Your task to perform on an android device: manage bookmarks in the chrome app Image 0: 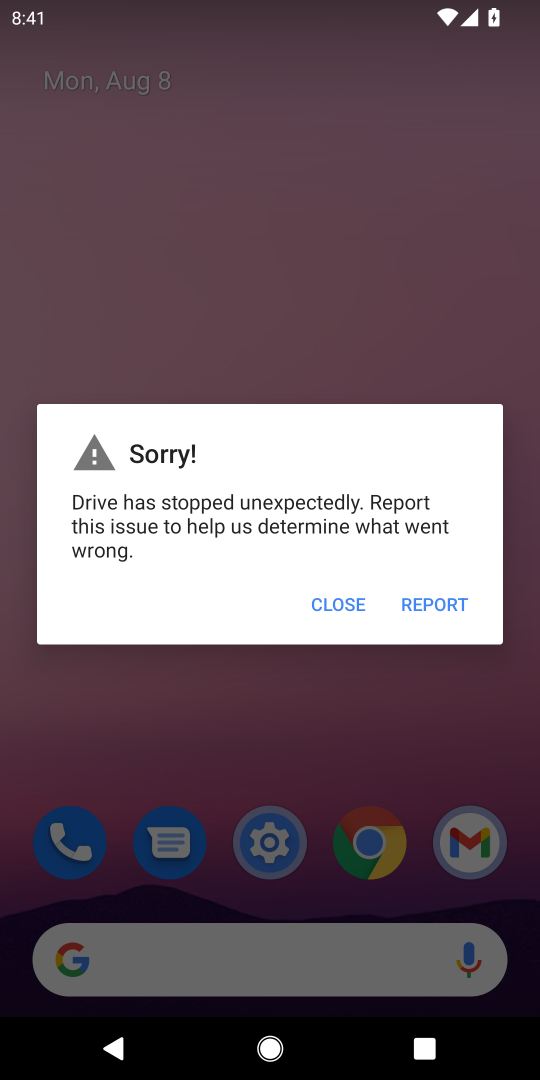
Step 0: click (359, 603)
Your task to perform on an android device: manage bookmarks in the chrome app Image 1: 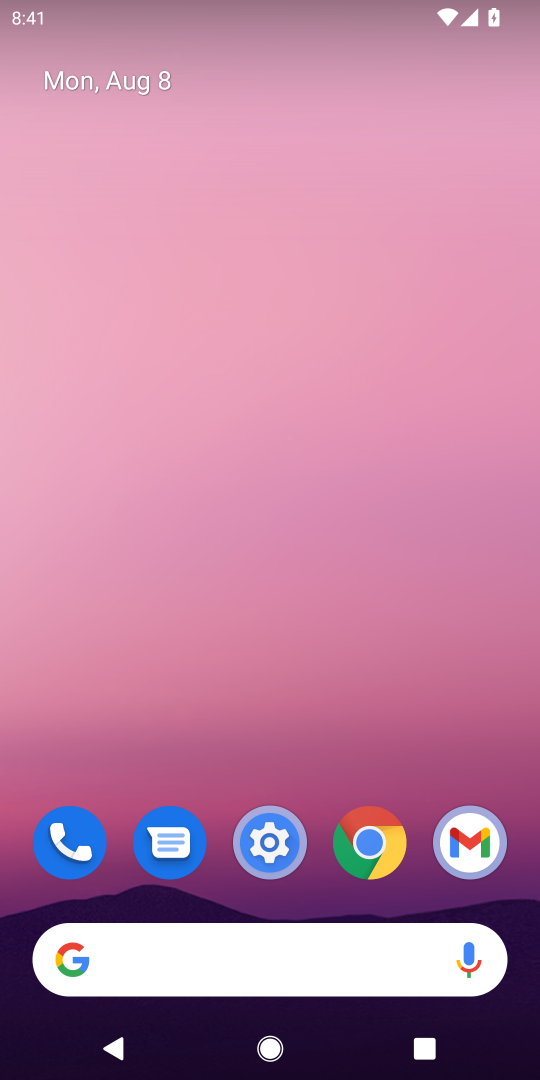
Step 1: click (383, 842)
Your task to perform on an android device: manage bookmarks in the chrome app Image 2: 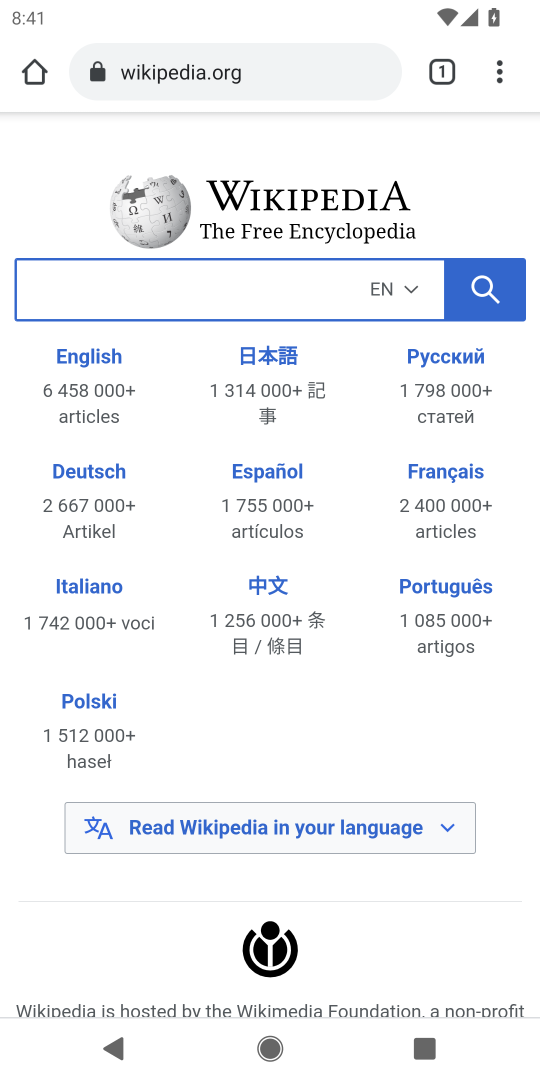
Step 2: click (497, 78)
Your task to perform on an android device: manage bookmarks in the chrome app Image 3: 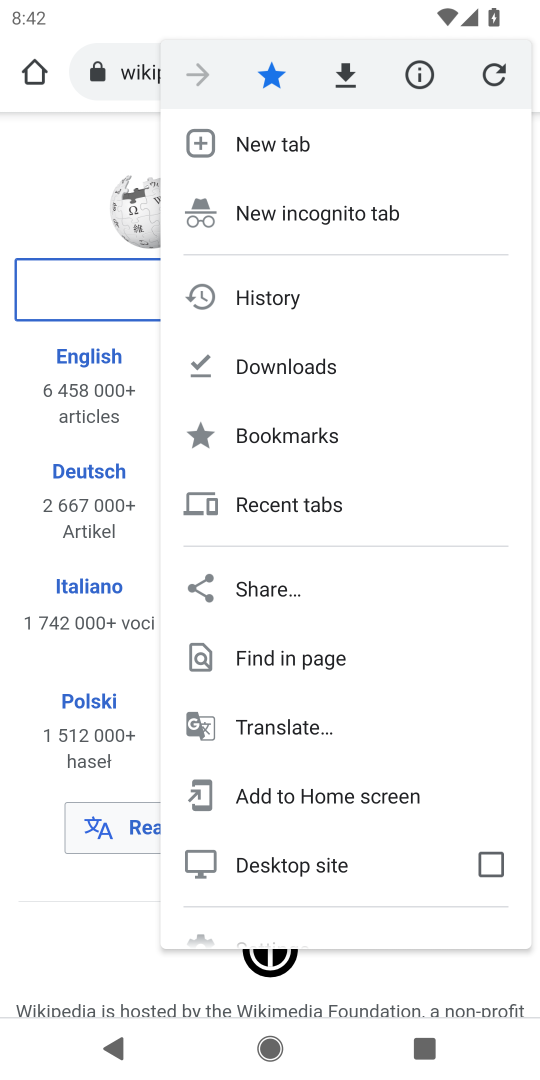
Step 3: click (295, 447)
Your task to perform on an android device: manage bookmarks in the chrome app Image 4: 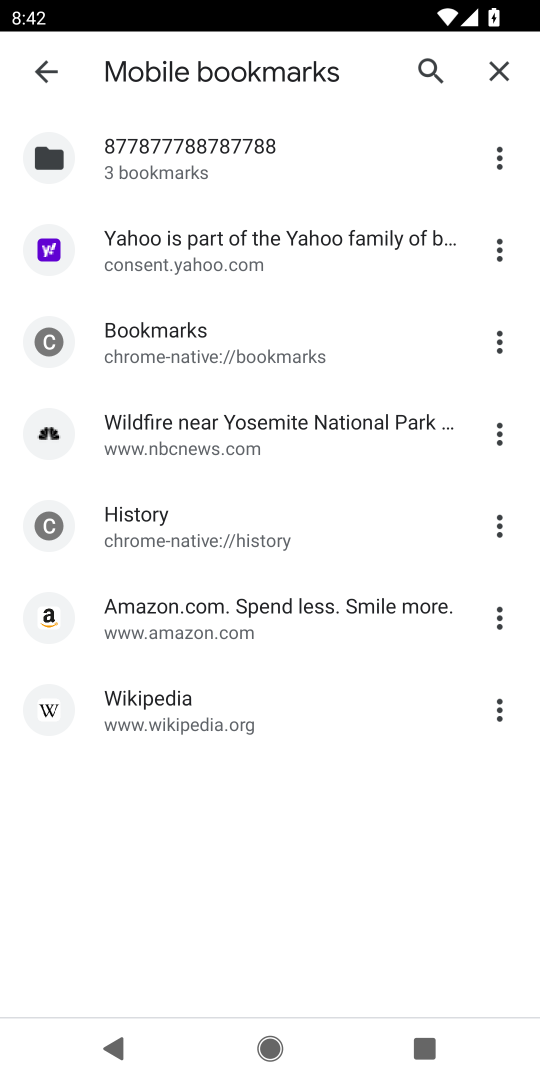
Step 4: click (505, 615)
Your task to perform on an android device: manage bookmarks in the chrome app Image 5: 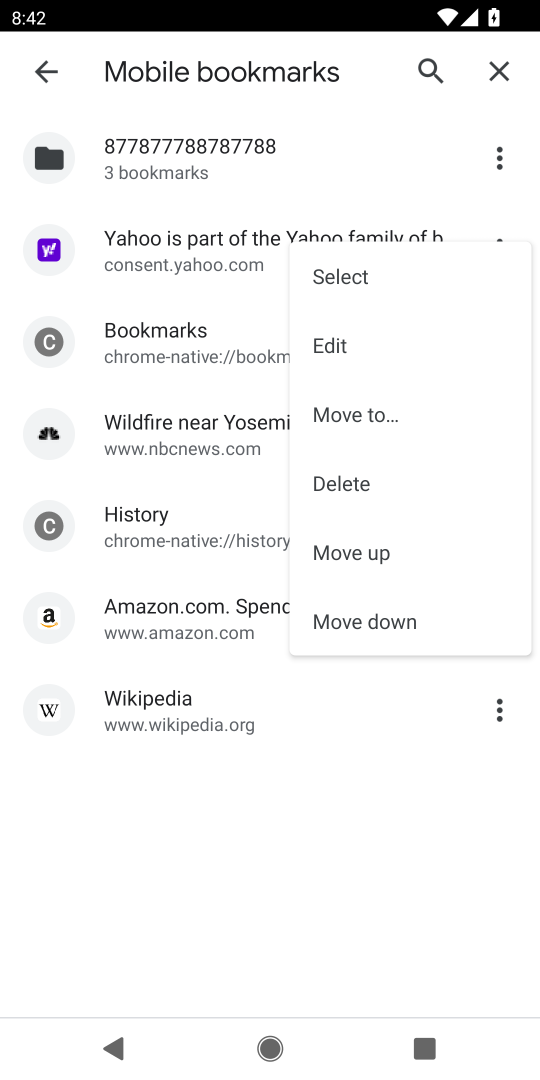
Step 5: click (415, 616)
Your task to perform on an android device: manage bookmarks in the chrome app Image 6: 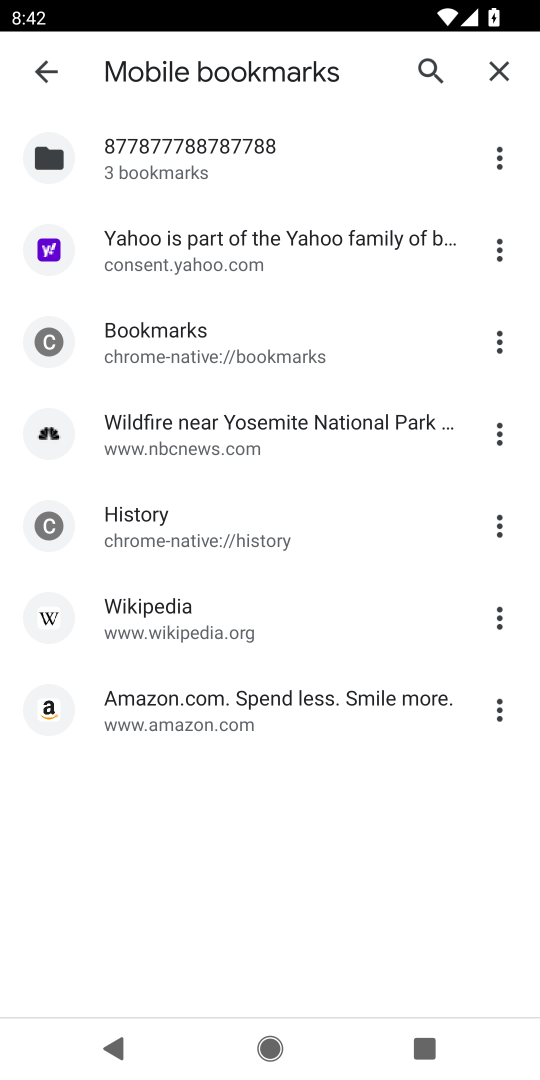
Step 6: task complete